Your task to perform on an android device: delete location history Image 0: 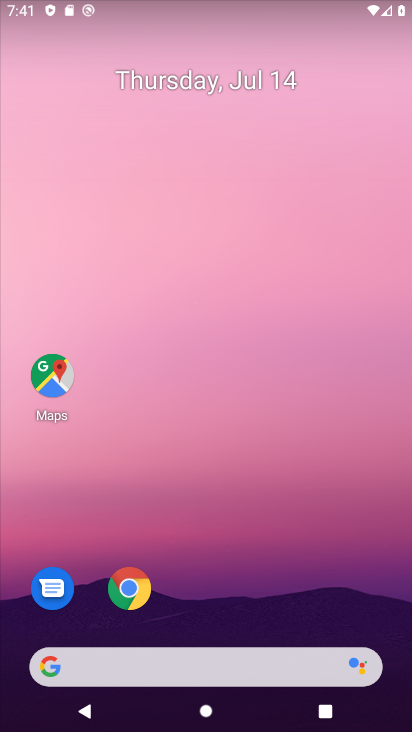
Step 0: drag from (311, 604) to (232, 191)
Your task to perform on an android device: delete location history Image 1: 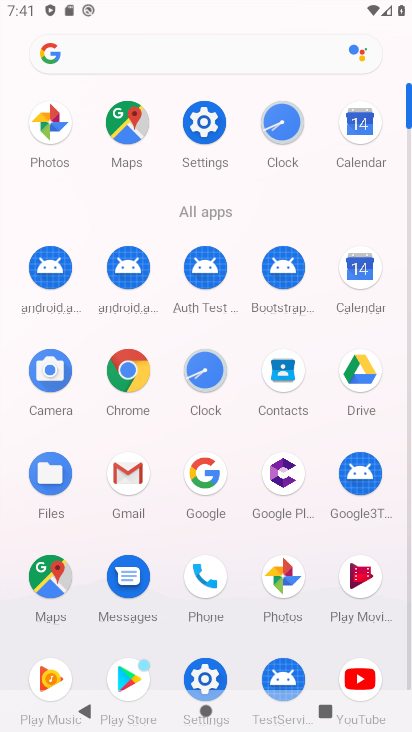
Step 1: click (121, 119)
Your task to perform on an android device: delete location history Image 2: 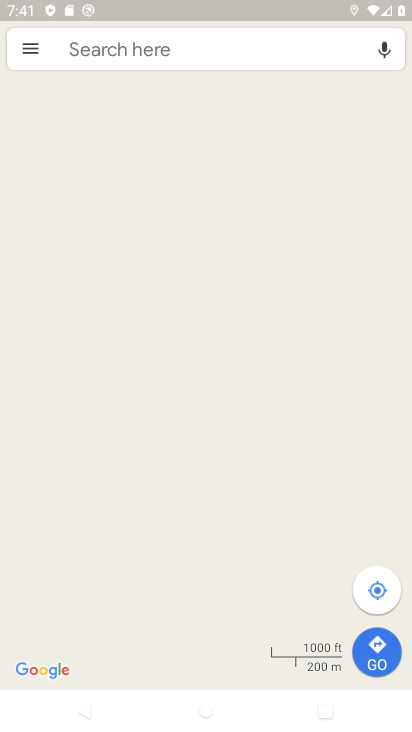
Step 2: click (25, 43)
Your task to perform on an android device: delete location history Image 3: 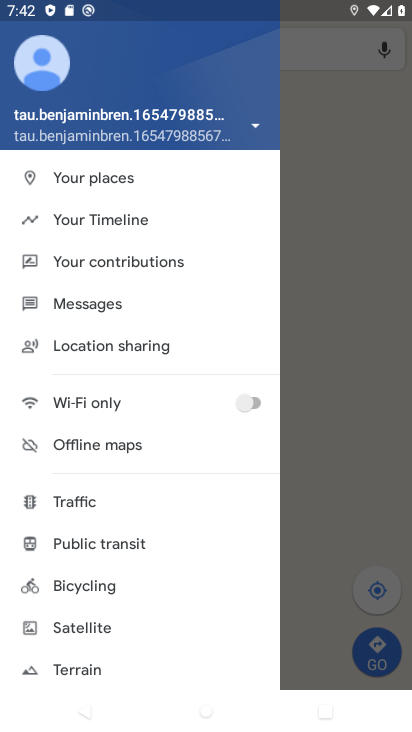
Step 3: drag from (102, 639) to (190, 260)
Your task to perform on an android device: delete location history Image 4: 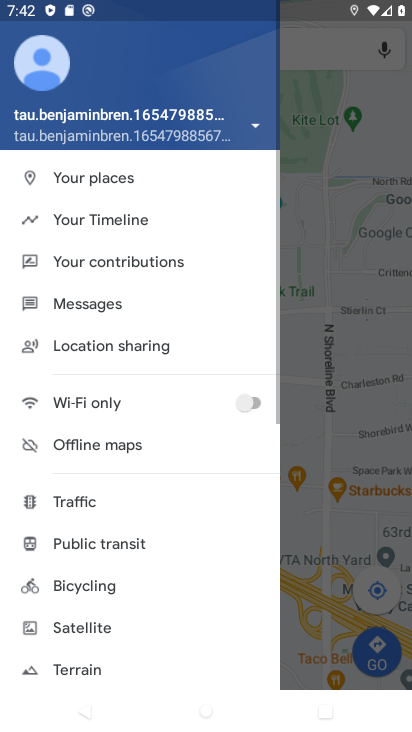
Step 4: drag from (123, 636) to (187, 307)
Your task to perform on an android device: delete location history Image 5: 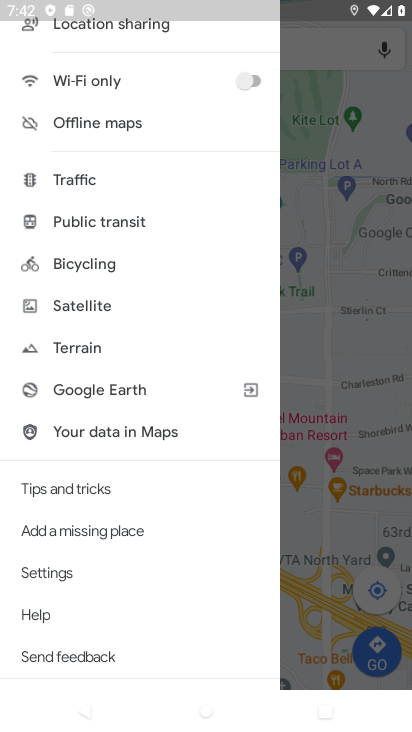
Step 5: click (71, 575)
Your task to perform on an android device: delete location history Image 6: 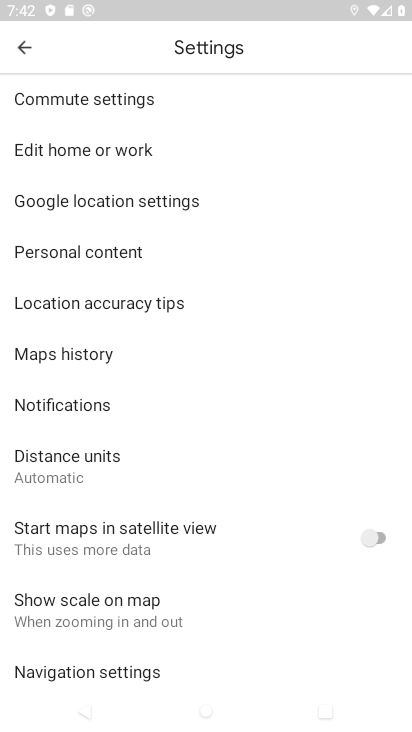
Step 6: click (79, 358)
Your task to perform on an android device: delete location history Image 7: 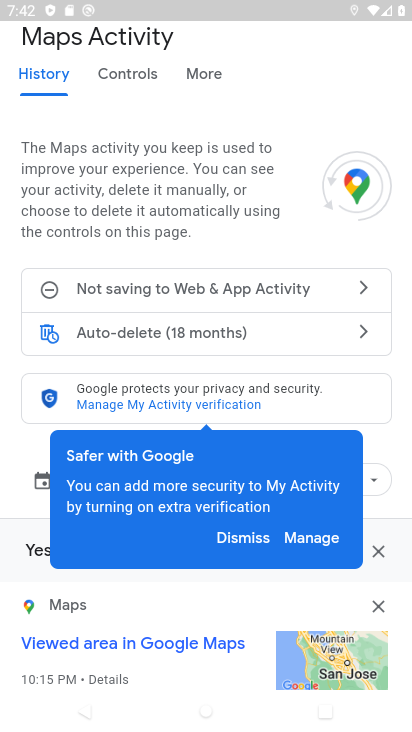
Step 7: click (269, 546)
Your task to perform on an android device: delete location history Image 8: 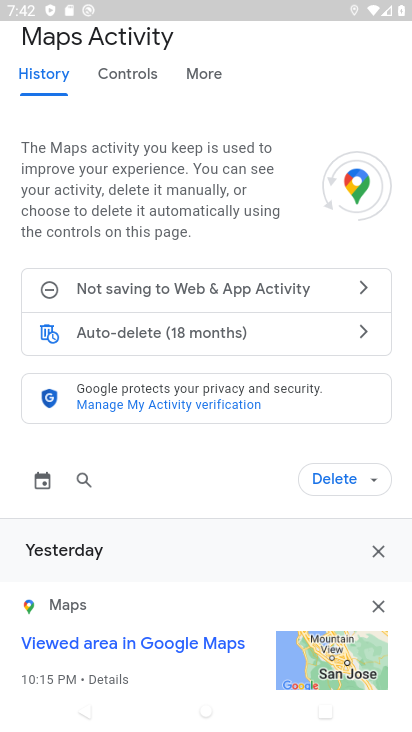
Step 8: click (332, 480)
Your task to perform on an android device: delete location history Image 9: 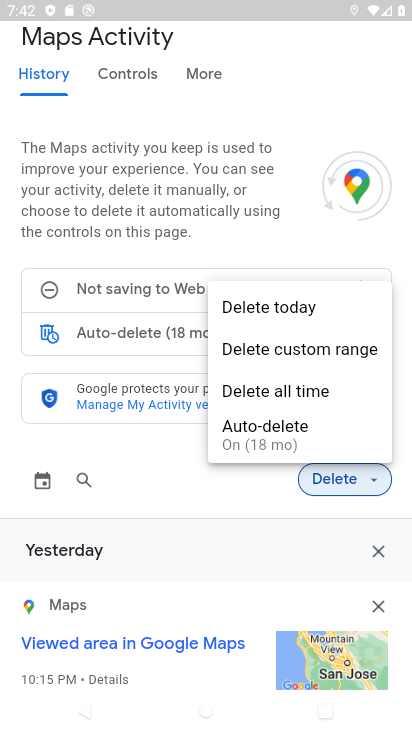
Step 9: click (298, 397)
Your task to perform on an android device: delete location history Image 10: 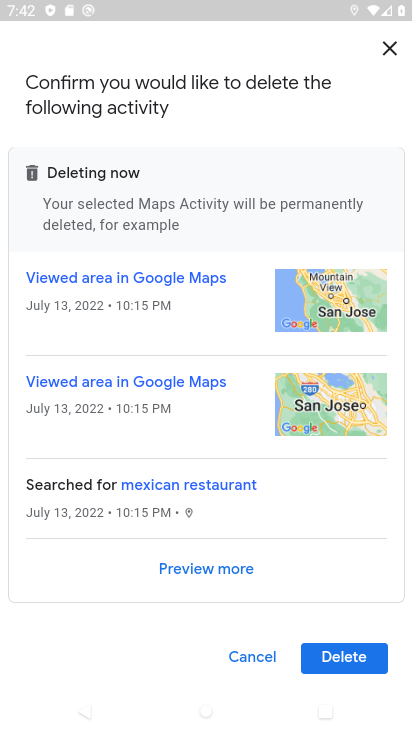
Step 10: click (354, 654)
Your task to perform on an android device: delete location history Image 11: 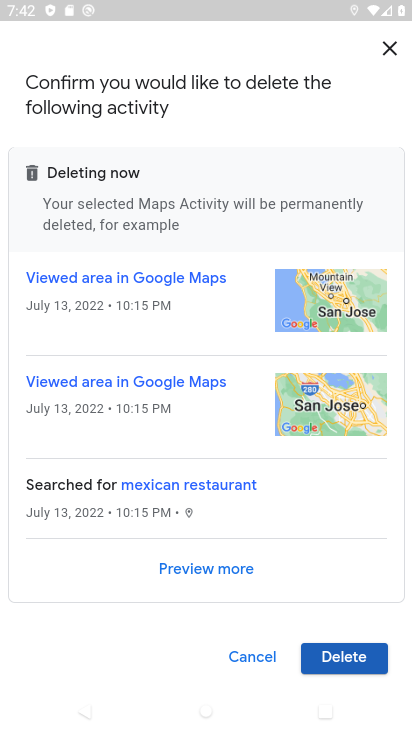
Step 11: click (348, 662)
Your task to perform on an android device: delete location history Image 12: 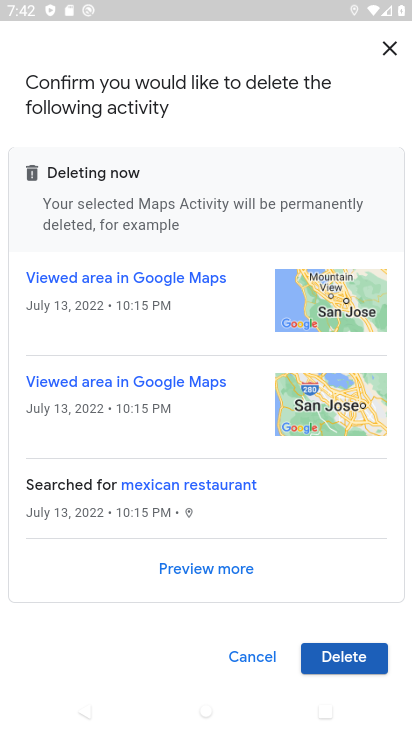
Step 12: click (348, 662)
Your task to perform on an android device: delete location history Image 13: 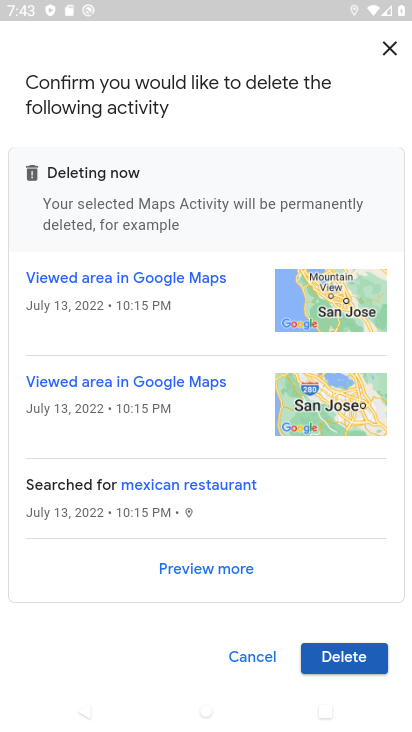
Step 13: click (348, 662)
Your task to perform on an android device: delete location history Image 14: 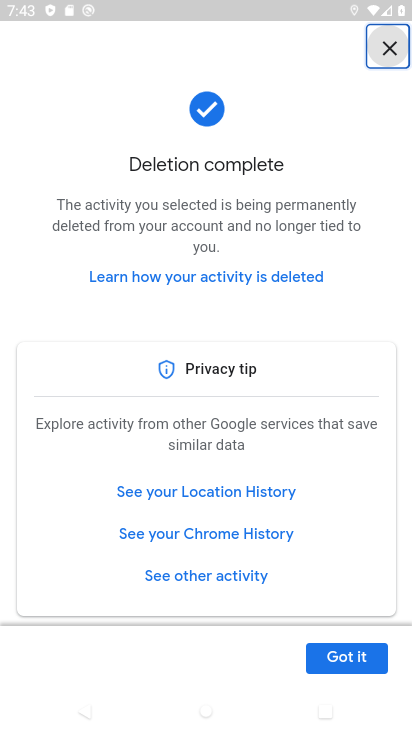
Step 14: task complete